Your task to perform on an android device: open app "Google Play Music" Image 0: 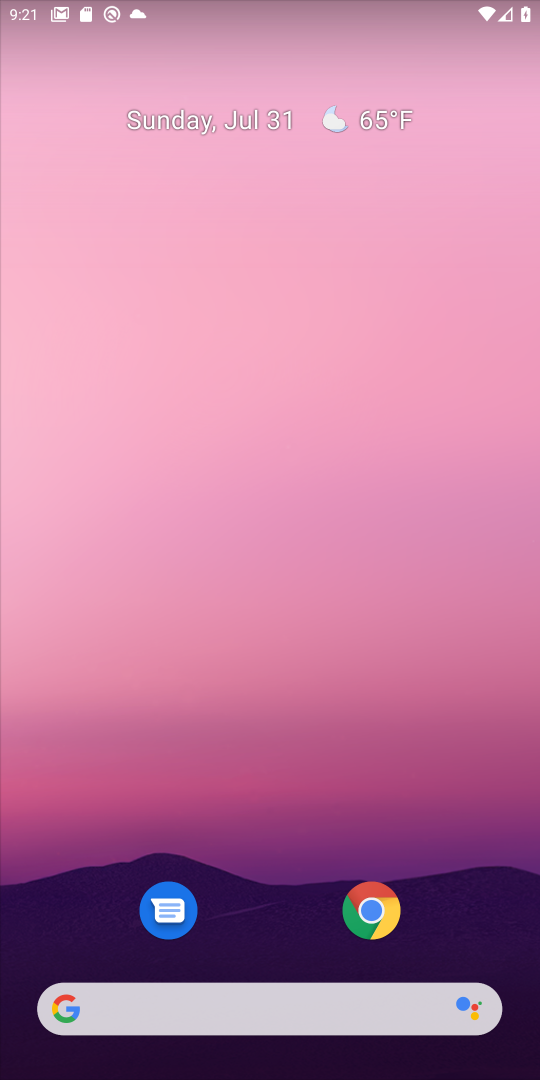
Step 0: click (297, 410)
Your task to perform on an android device: open app "Google Play Music" Image 1: 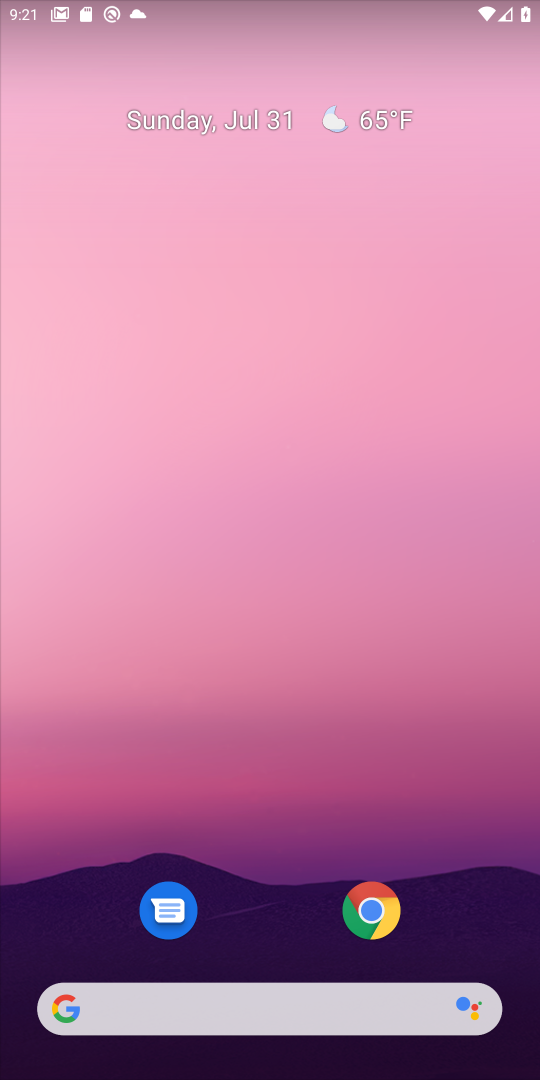
Step 1: drag from (286, 778) to (237, 149)
Your task to perform on an android device: open app "Google Play Music" Image 2: 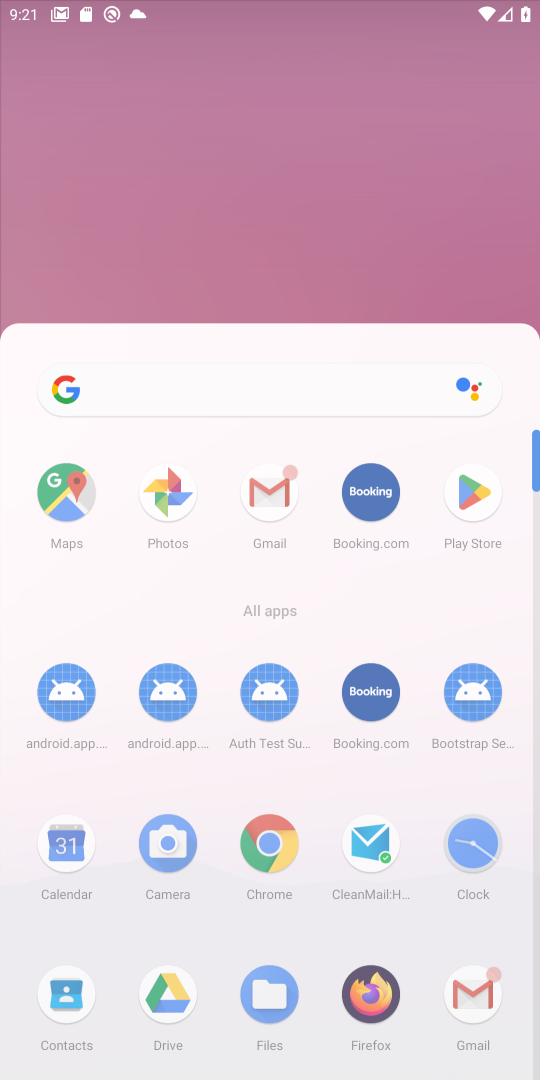
Step 2: drag from (228, 765) to (230, 263)
Your task to perform on an android device: open app "Google Play Music" Image 3: 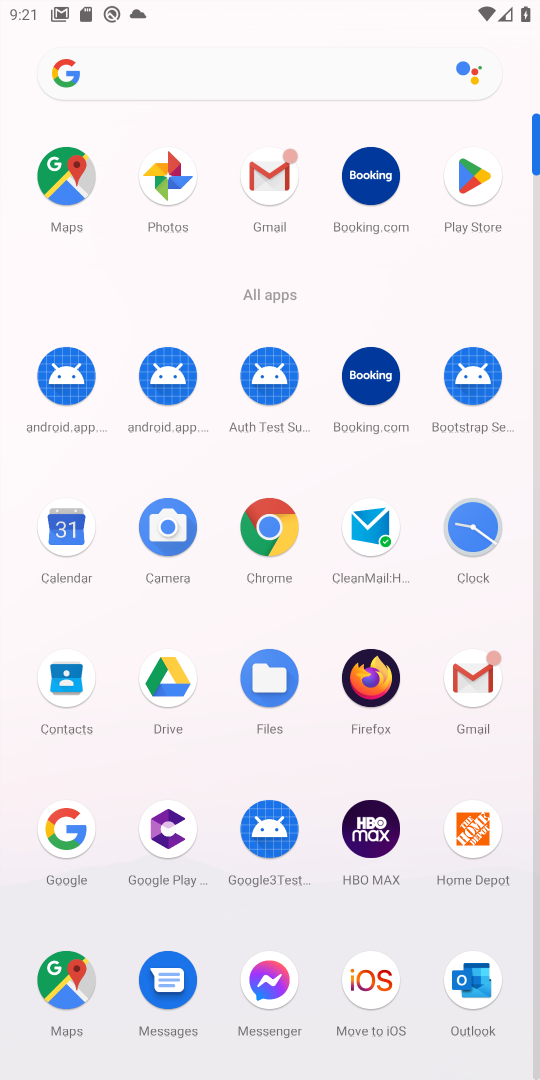
Step 3: drag from (241, 814) to (234, 343)
Your task to perform on an android device: open app "Google Play Music" Image 4: 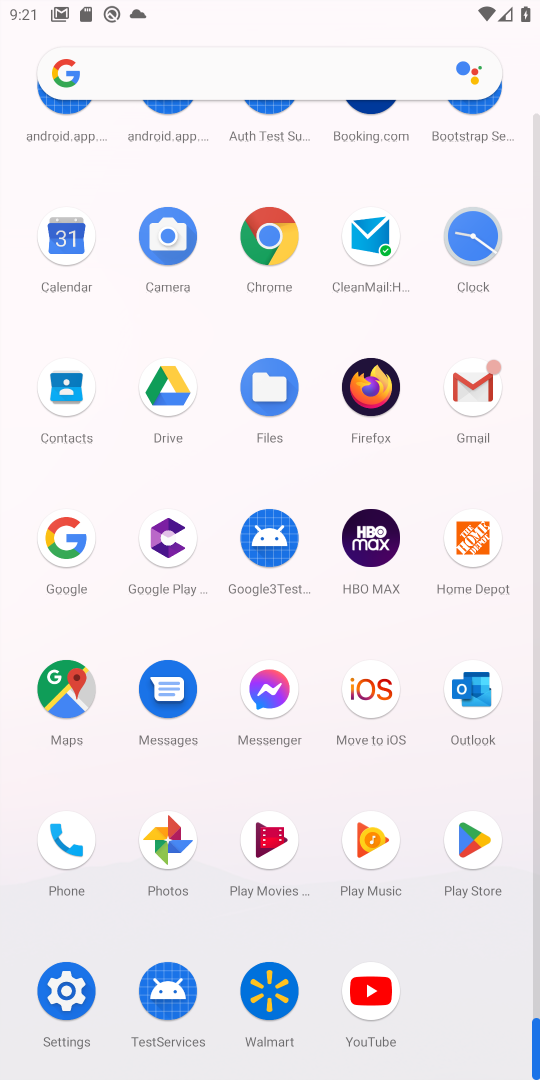
Step 4: click (362, 845)
Your task to perform on an android device: open app "Google Play Music" Image 5: 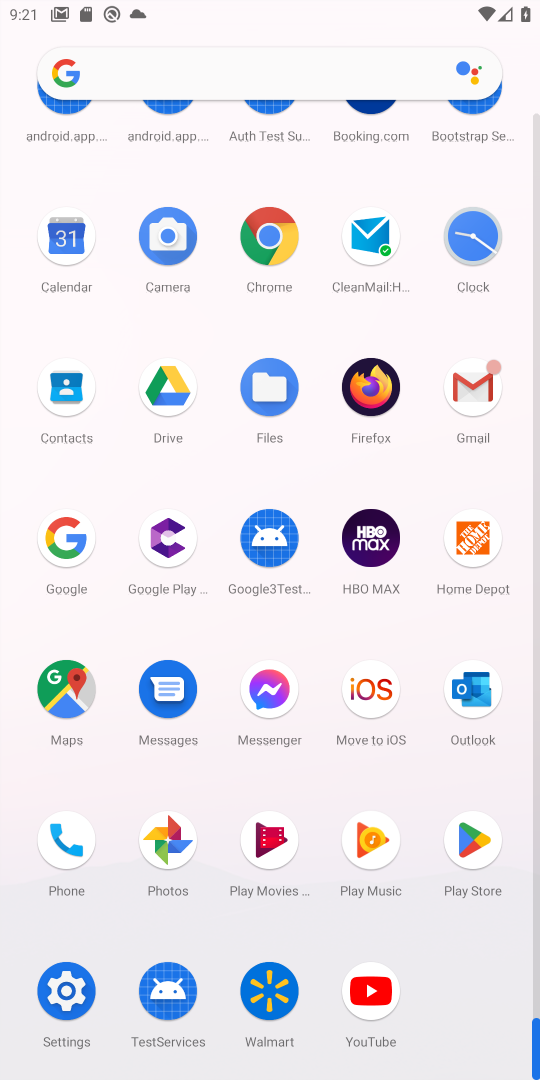
Step 5: click (374, 850)
Your task to perform on an android device: open app "Google Play Music" Image 6: 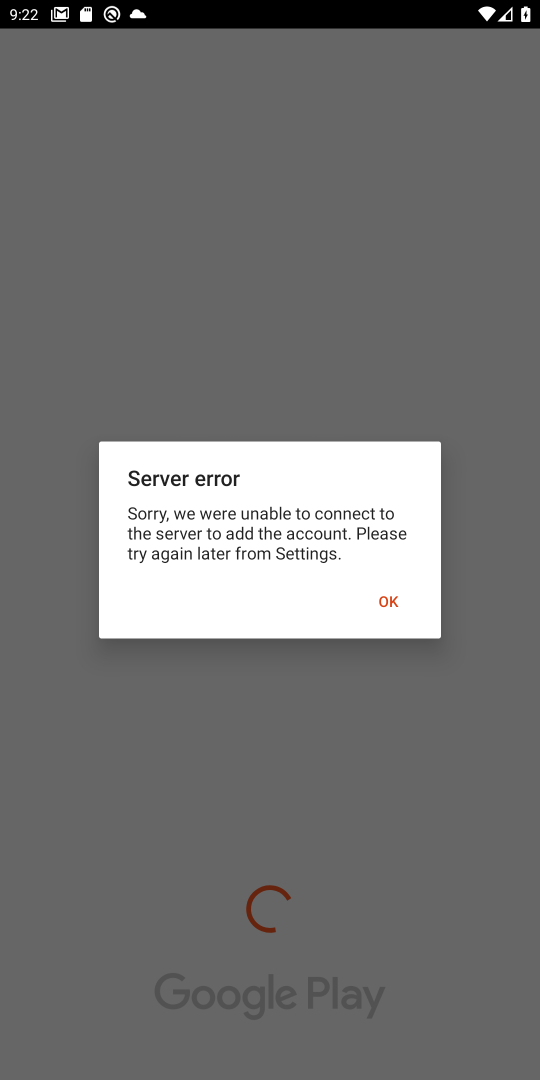
Step 6: click (398, 644)
Your task to perform on an android device: open app "Google Play Music" Image 7: 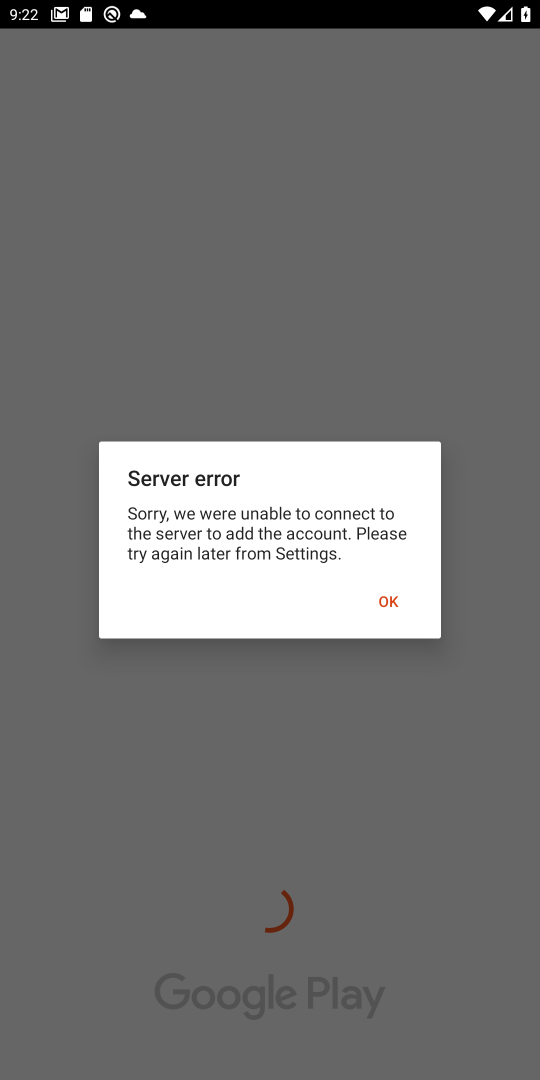
Step 7: click (398, 612)
Your task to perform on an android device: open app "Google Play Music" Image 8: 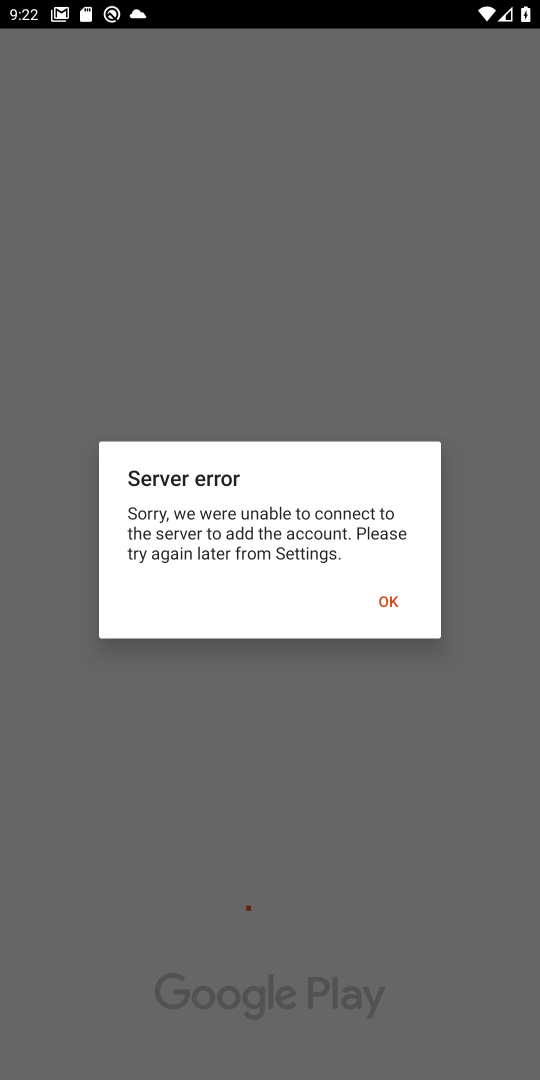
Step 8: click (368, 608)
Your task to perform on an android device: open app "Google Play Music" Image 9: 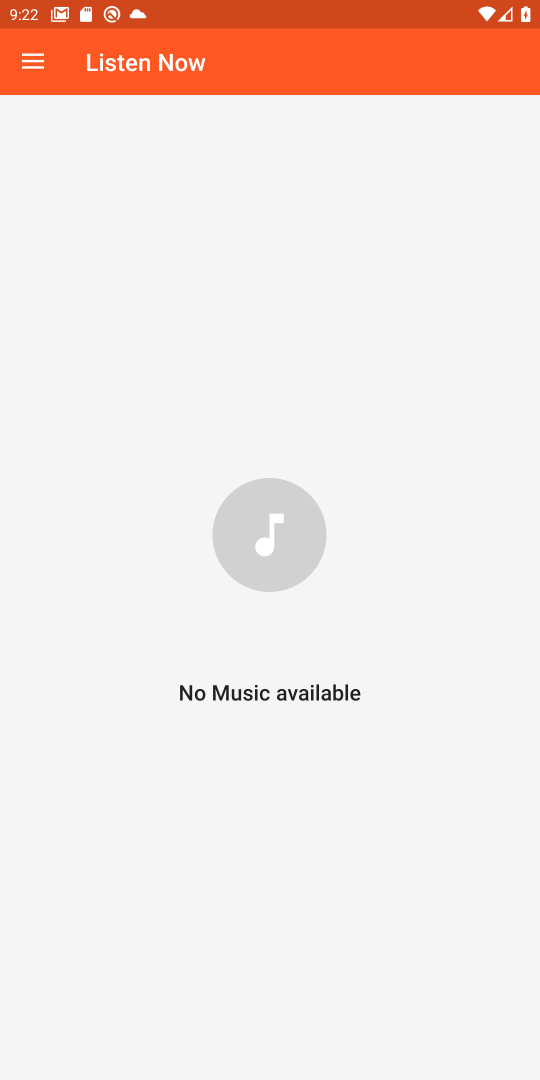
Step 9: task complete